Your task to perform on an android device: Is it going to rain today? Image 0: 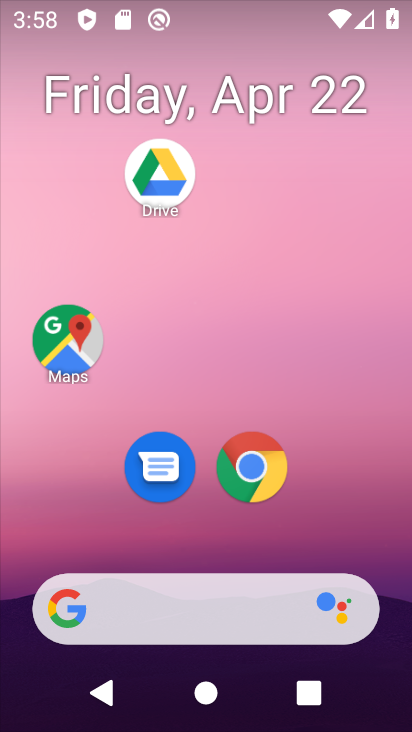
Step 0: drag from (207, 538) to (216, 85)
Your task to perform on an android device: Is it going to rain today? Image 1: 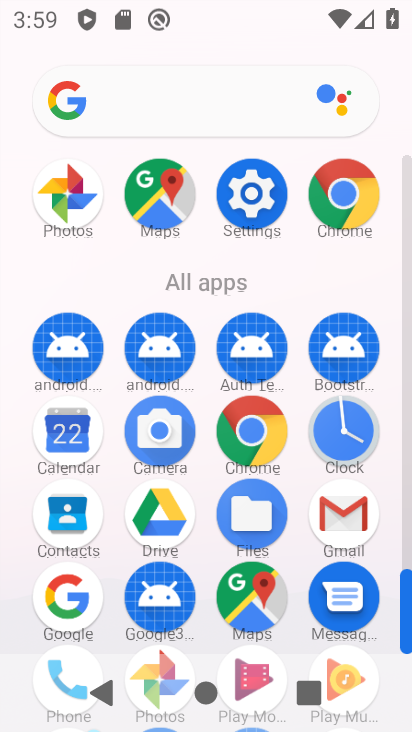
Step 1: click (9, 275)
Your task to perform on an android device: Is it going to rain today? Image 2: 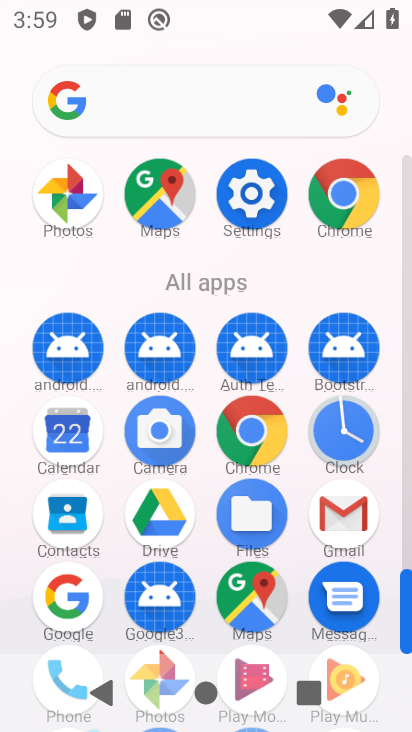
Step 2: press back button
Your task to perform on an android device: Is it going to rain today? Image 3: 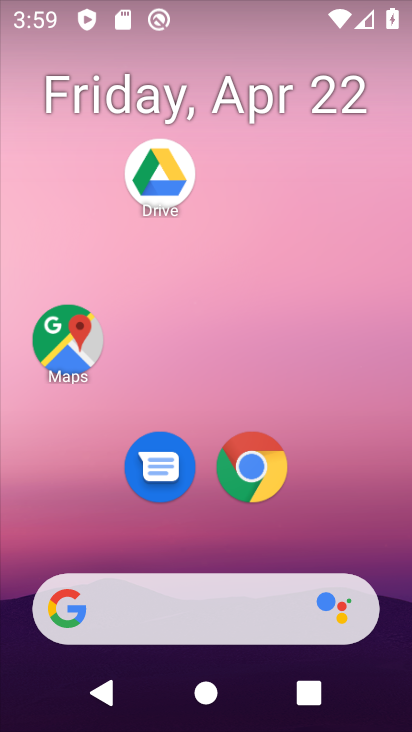
Step 3: drag from (5, 258) to (410, 242)
Your task to perform on an android device: Is it going to rain today? Image 4: 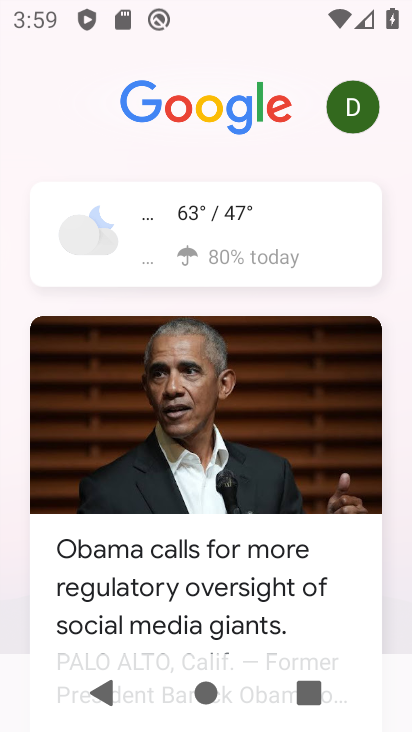
Step 4: click (227, 226)
Your task to perform on an android device: Is it going to rain today? Image 5: 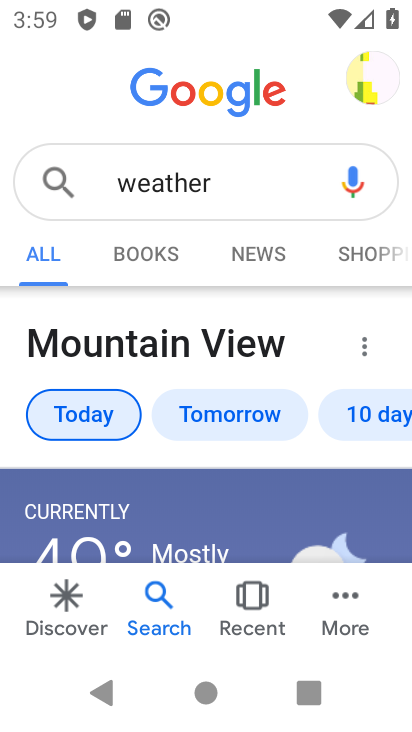
Step 5: task complete